Your task to perform on an android device: change timer sound Image 0: 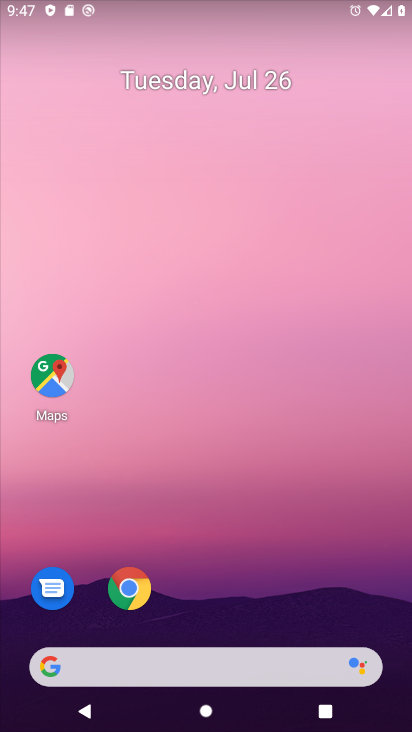
Step 0: drag from (231, 617) to (234, 47)
Your task to perform on an android device: change timer sound Image 1: 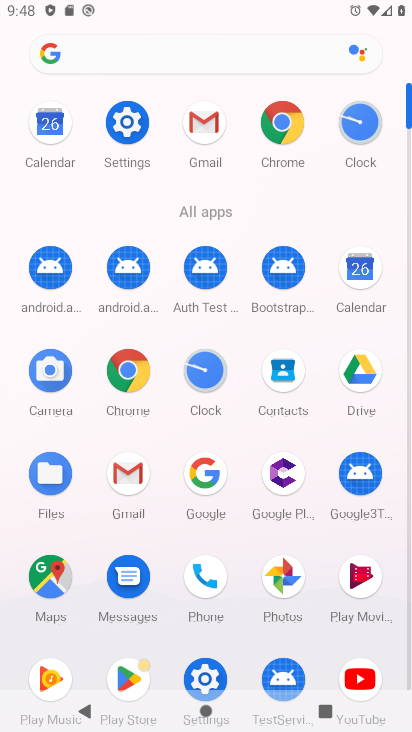
Step 1: click (202, 366)
Your task to perform on an android device: change timer sound Image 2: 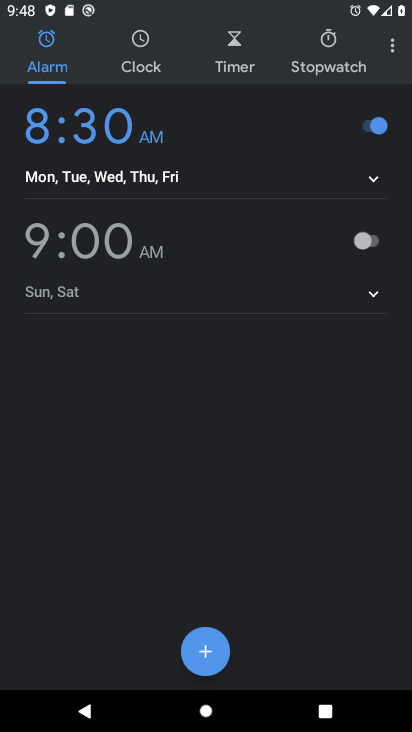
Step 2: click (400, 48)
Your task to perform on an android device: change timer sound Image 3: 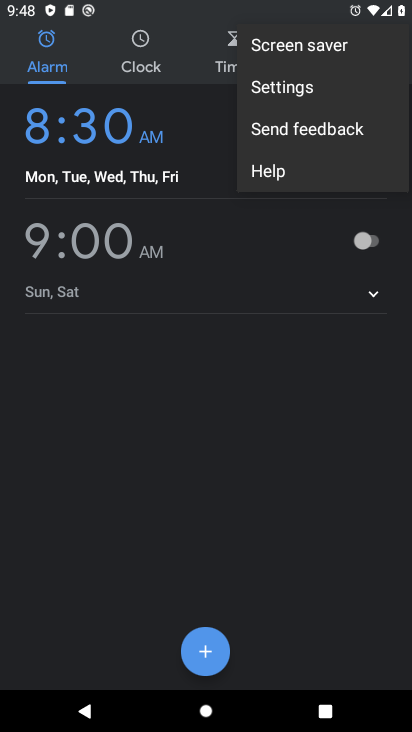
Step 3: click (291, 88)
Your task to perform on an android device: change timer sound Image 4: 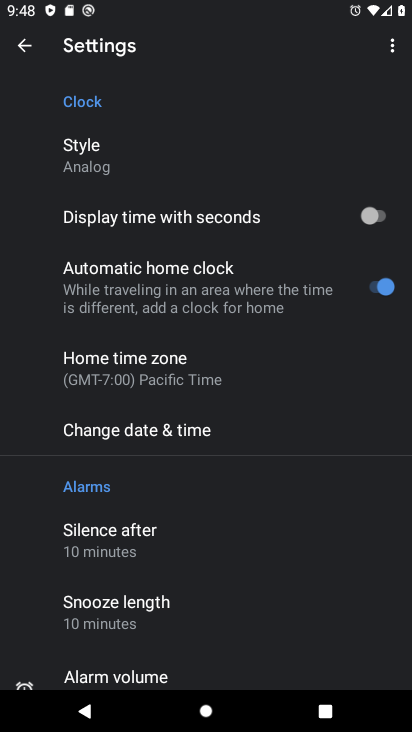
Step 4: drag from (156, 643) to (251, 297)
Your task to perform on an android device: change timer sound Image 5: 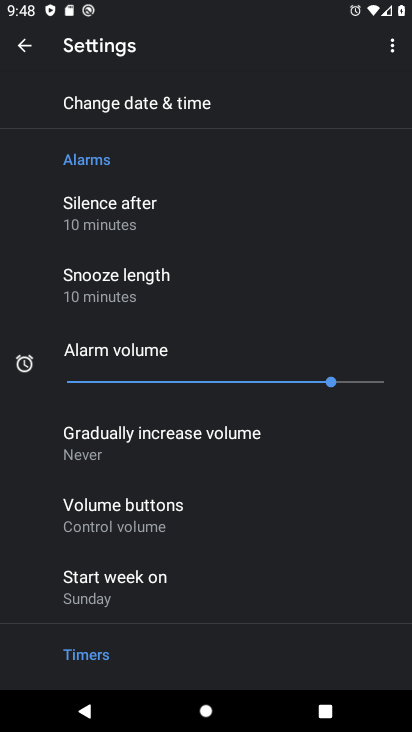
Step 5: drag from (136, 627) to (243, 230)
Your task to perform on an android device: change timer sound Image 6: 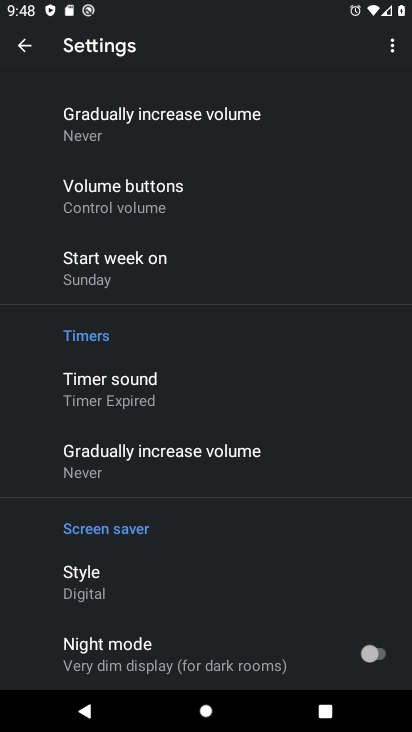
Step 6: click (109, 400)
Your task to perform on an android device: change timer sound Image 7: 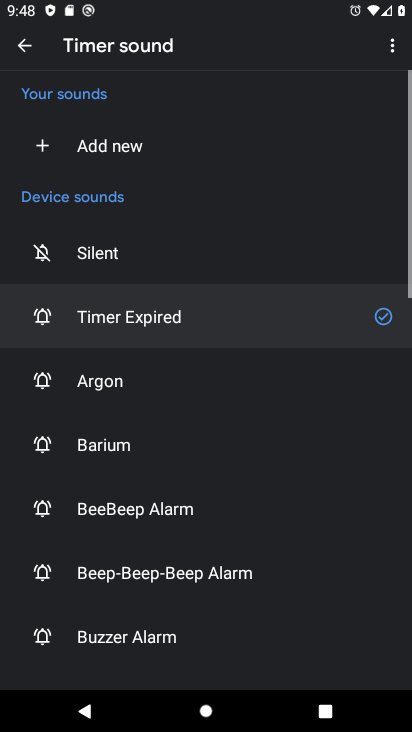
Step 7: click (123, 381)
Your task to perform on an android device: change timer sound Image 8: 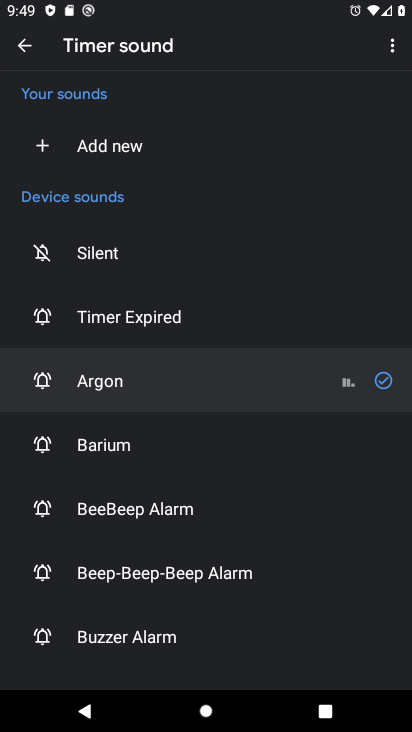
Step 8: task complete